Your task to perform on an android device: turn off improve location accuracy Image 0: 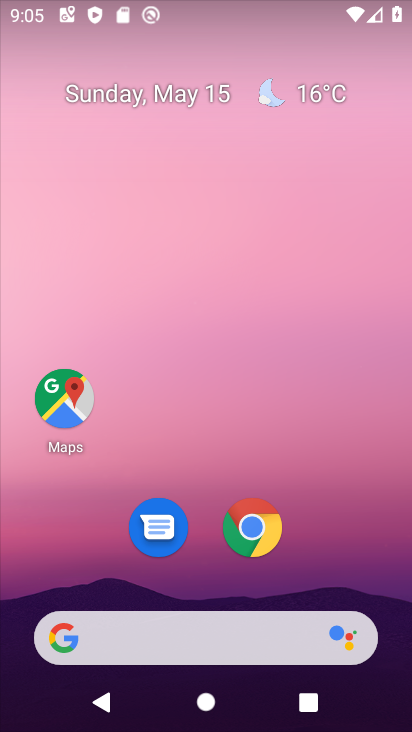
Step 0: drag from (363, 587) to (360, 27)
Your task to perform on an android device: turn off improve location accuracy Image 1: 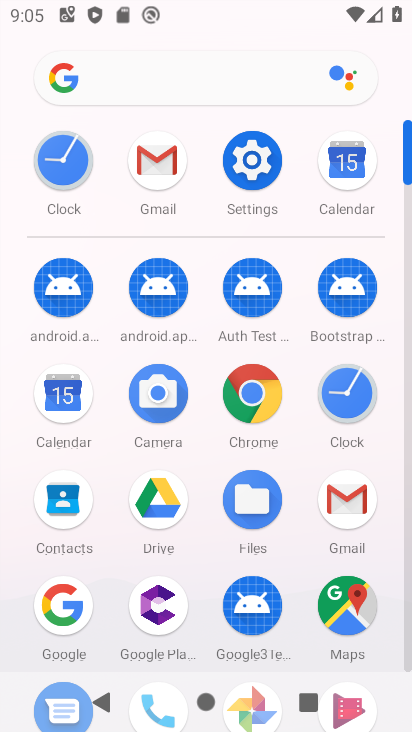
Step 1: click (253, 160)
Your task to perform on an android device: turn off improve location accuracy Image 2: 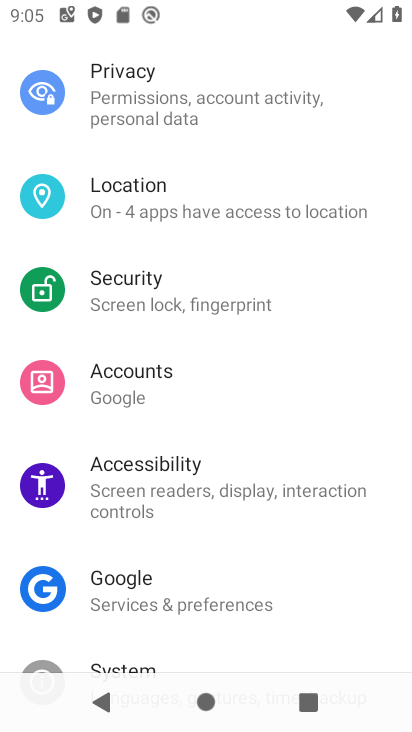
Step 2: click (164, 203)
Your task to perform on an android device: turn off improve location accuracy Image 3: 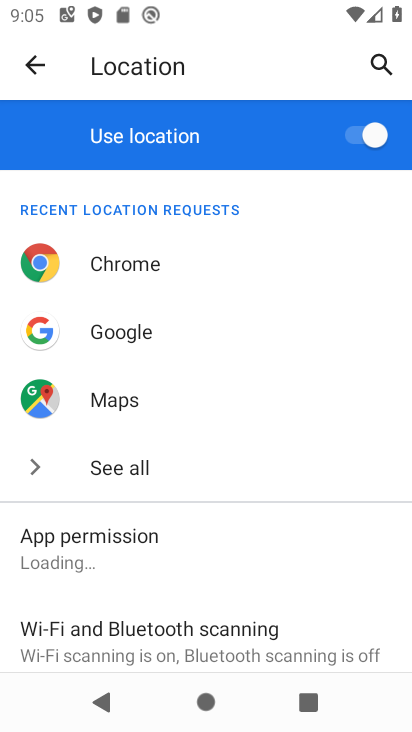
Step 3: drag from (230, 574) to (215, 241)
Your task to perform on an android device: turn off improve location accuracy Image 4: 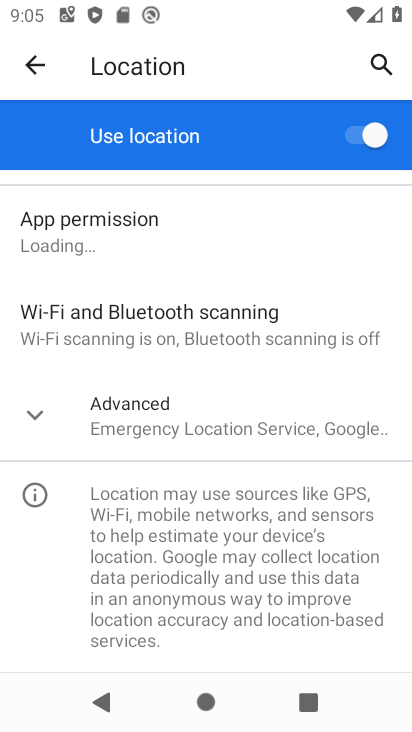
Step 4: click (28, 423)
Your task to perform on an android device: turn off improve location accuracy Image 5: 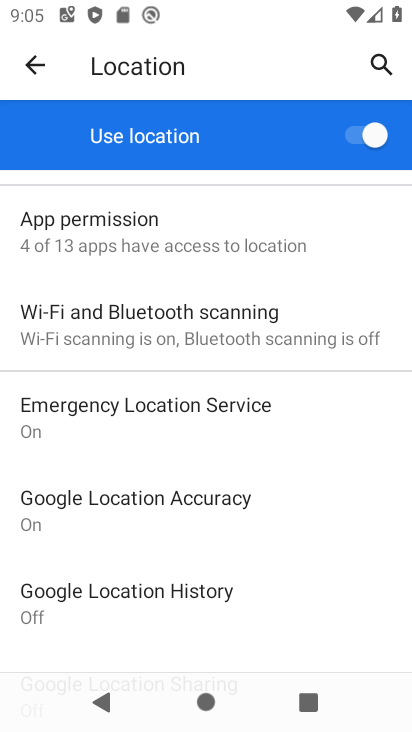
Step 5: click (46, 504)
Your task to perform on an android device: turn off improve location accuracy Image 6: 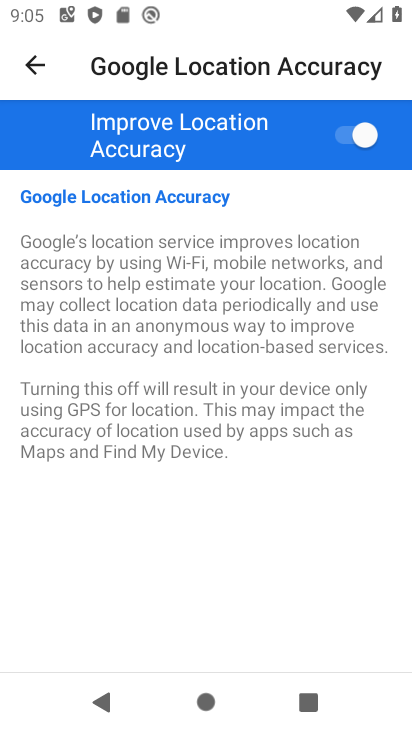
Step 6: click (352, 133)
Your task to perform on an android device: turn off improve location accuracy Image 7: 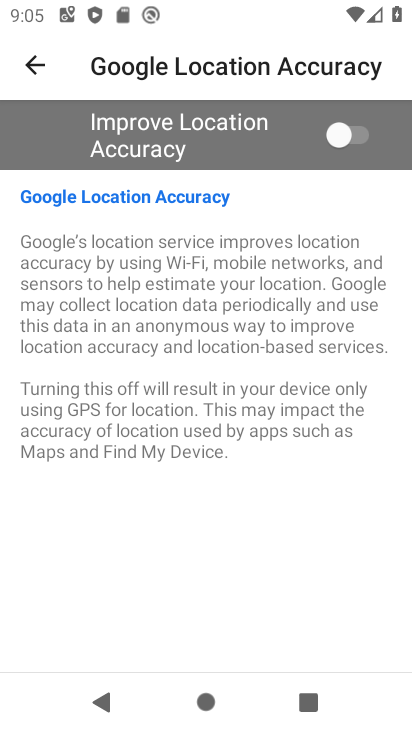
Step 7: task complete